Your task to perform on an android device: Search for seafood restaurants on Google Maps Image 0: 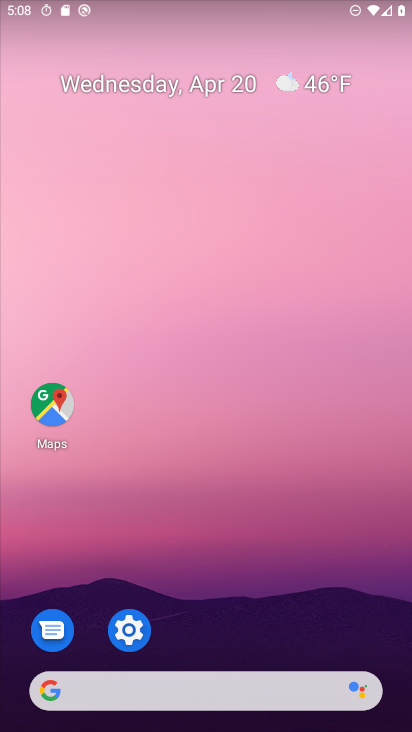
Step 0: drag from (165, 705) to (256, 144)
Your task to perform on an android device: Search for seafood restaurants on Google Maps Image 1: 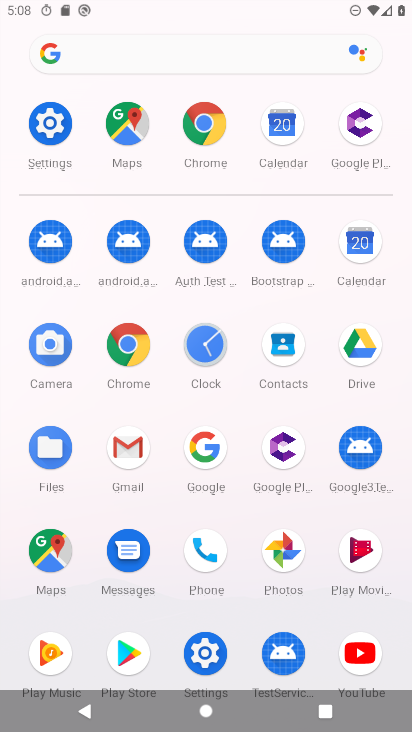
Step 1: click (42, 551)
Your task to perform on an android device: Search for seafood restaurants on Google Maps Image 2: 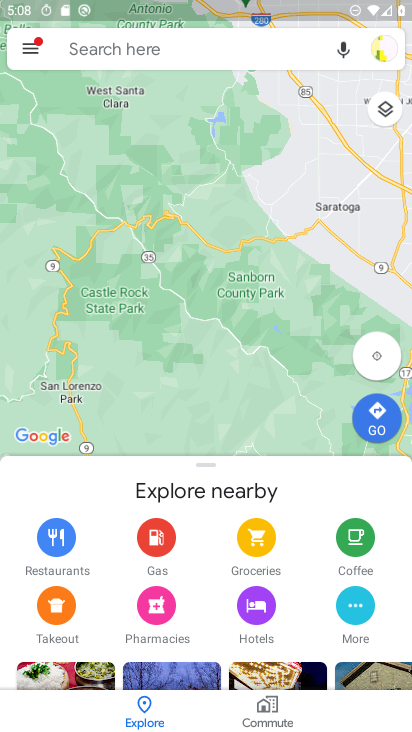
Step 2: click (213, 27)
Your task to perform on an android device: Search for seafood restaurants on Google Maps Image 3: 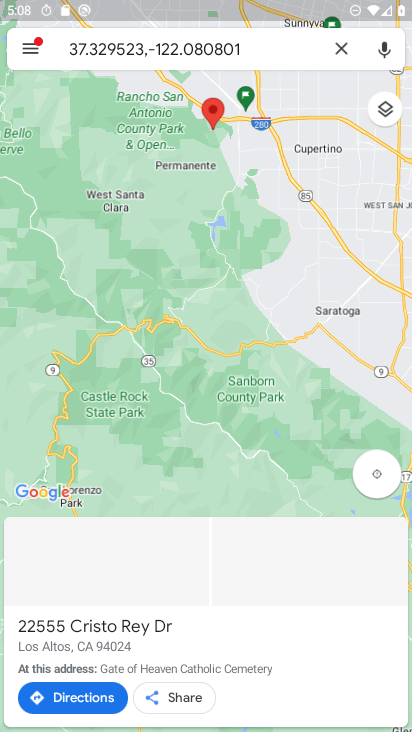
Step 3: click (273, 27)
Your task to perform on an android device: Search for seafood restaurants on Google Maps Image 4: 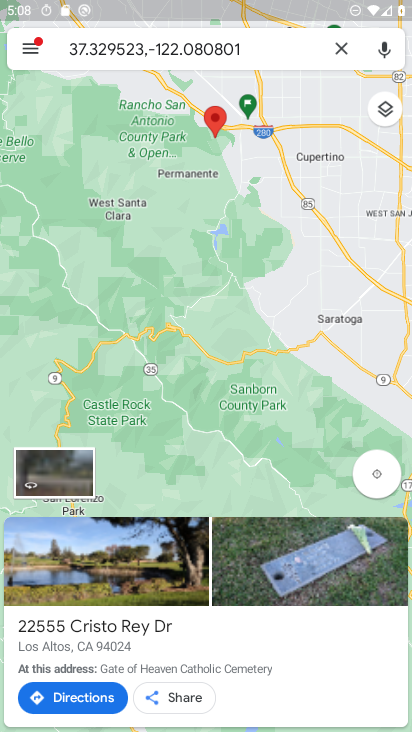
Step 4: click (347, 41)
Your task to perform on an android device: Search for seafood restaurants on Google Maps Image 5: 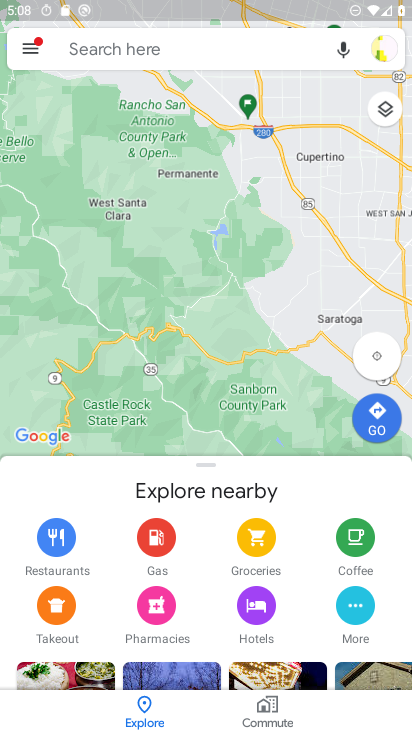
Step 5: click (232, 58)
Your task to perform on an android device: Search for seafood restaurants on Google Maps Image 6: 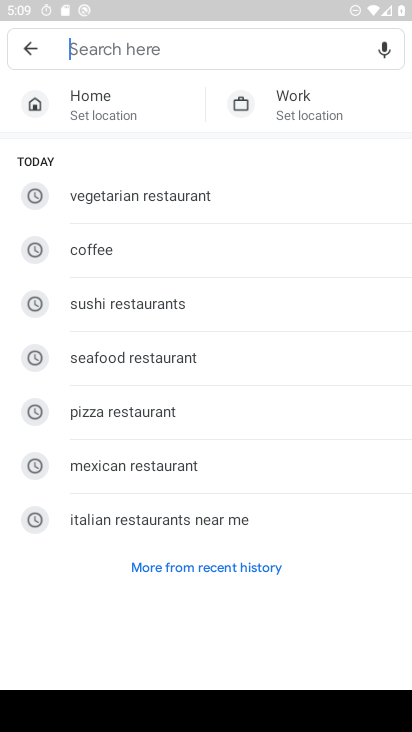
Step 6: type "seafood restaurant"
Your task to perform on an android device: Search for seafood restaurants on Google Maps Image 7: 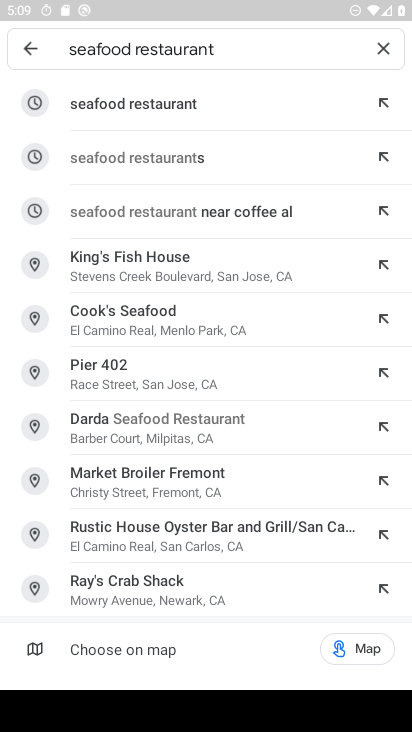
Step 7: click (190, 112)
Your task to perform on an android device: Search for seafood restaurants on Google Maps Image 8: 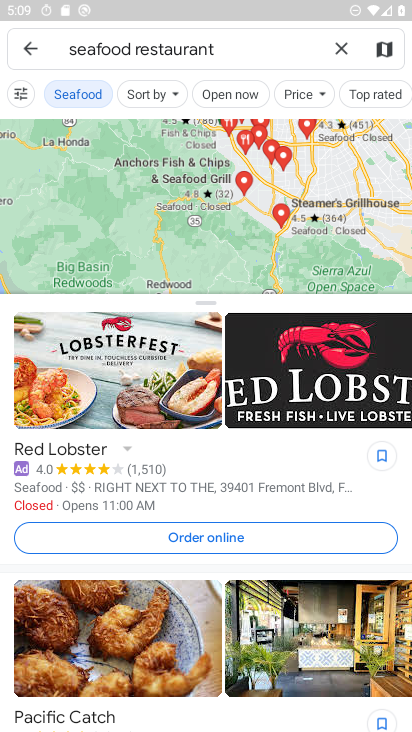
Step 8: task complete